Your task to perform on an android device: What's the weather? Image 0: 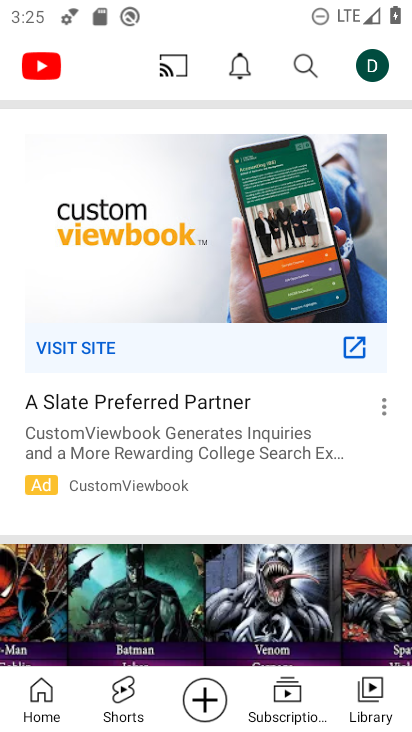
Step 0: press home button
Your task to perform on an android device: What's the weather? Image 1: 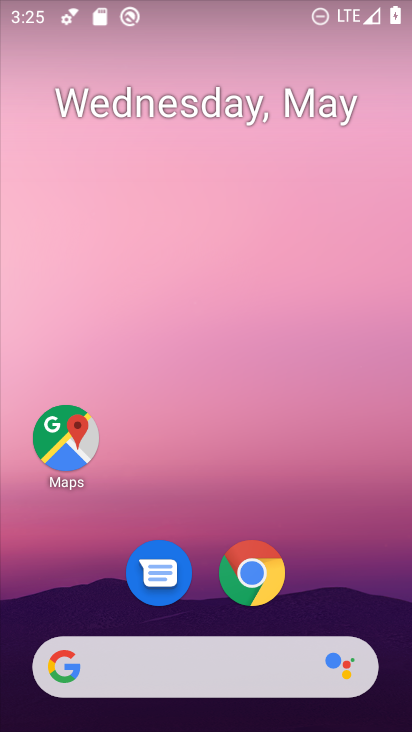
Step 1: click (153, 663)
Your task to perform on an android device: What's the weather? Image 2: 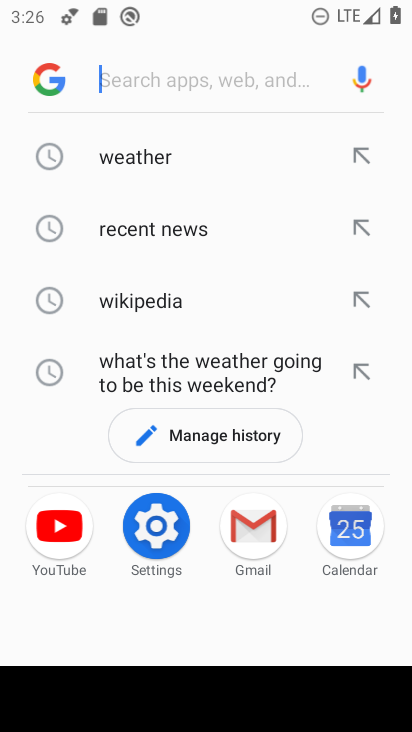
Step 2: type "what's the weather"
Your task to perform on an android device: What's the weather? Image 3: 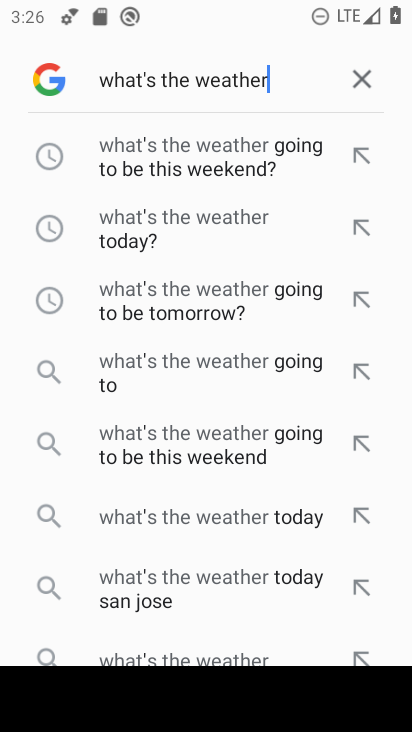
Step 3: drag from (223, 619) to (203, 480)
Your task to perform on an android device: What's the weather? Image 4: 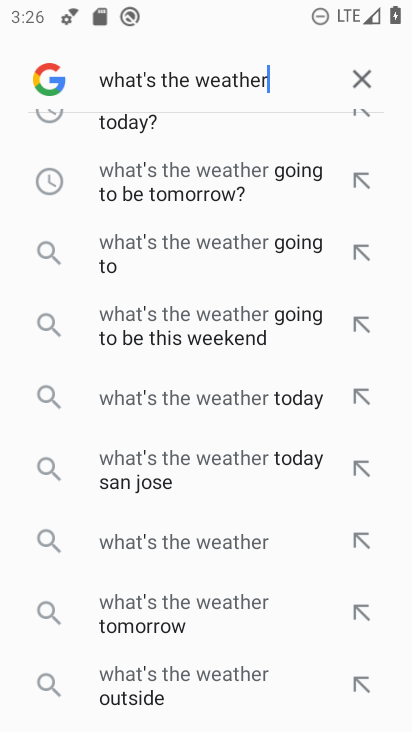
Step 4: click (211, 539)
Your task to perform on an android device: What's the weather? Image 5: 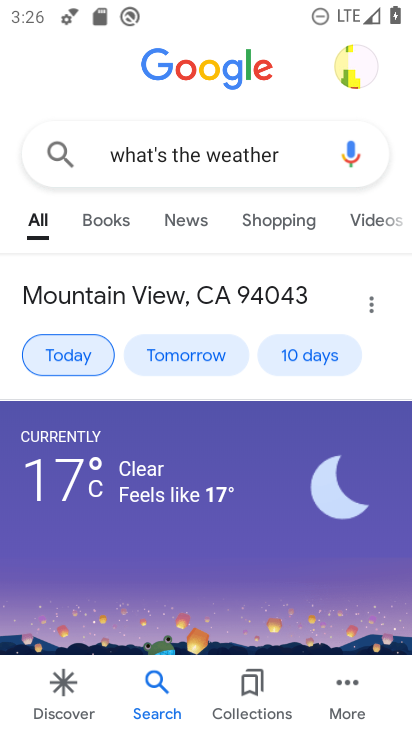
Step 5: task complete